Your task to perform on an android device: Open settings on Google Maps Image 0: 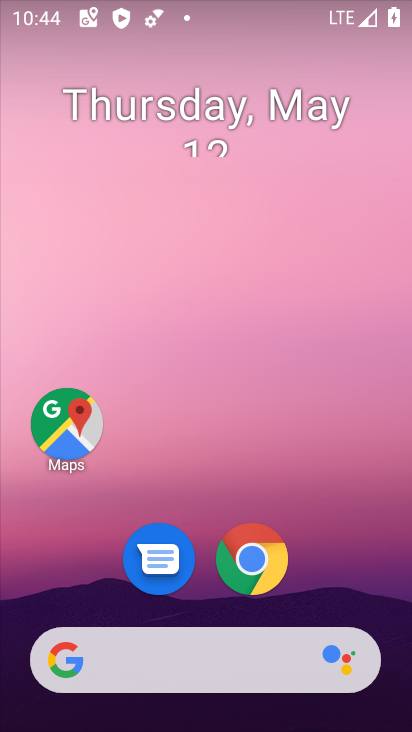
Step 0: click (82, 442)
Your task to perform on an android device: Open settings on Google Maps Image 1: 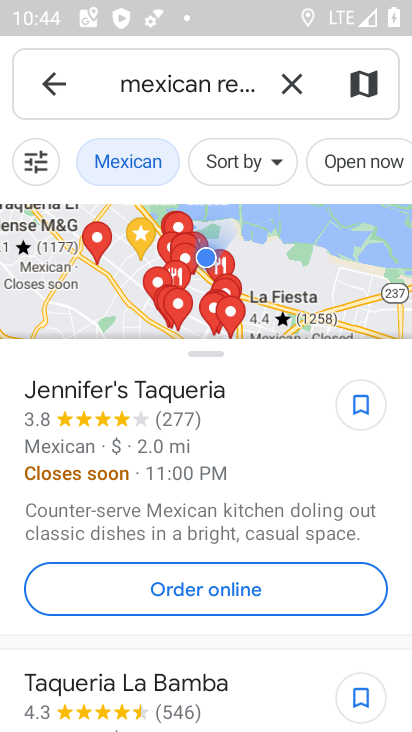
Step 1: click (286, 84)
Your task to perform on an android device: Open settings on Google Maps Image 2: 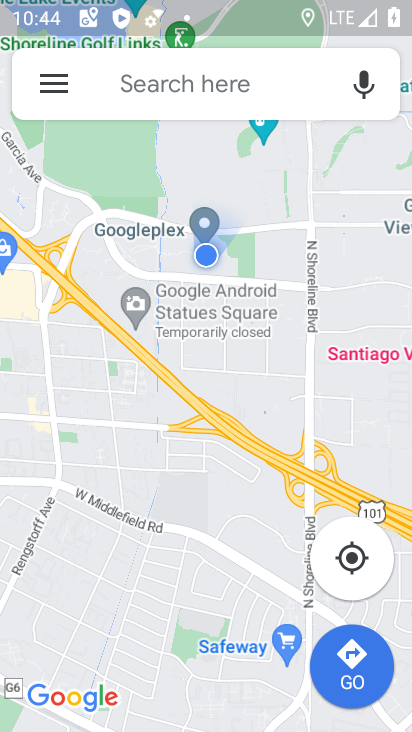
Step 2: click (67, 83)
Your task to perform on an android device: Open settings on Google Maps Image 3: 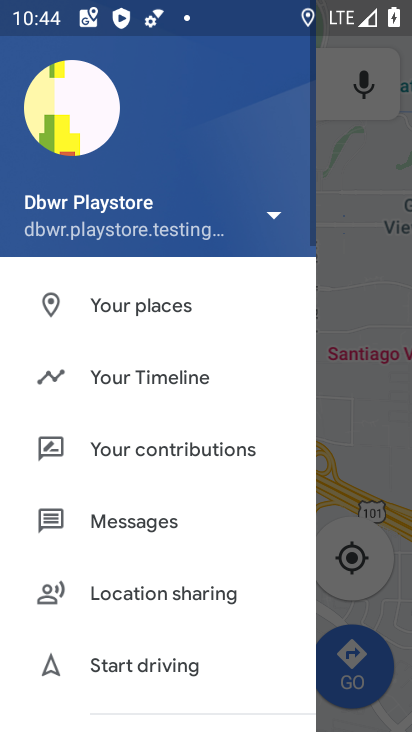
Step 3: drag from (150, 659) to (148, 310)
Your task to perform on an android device: Open settings on Google Maps Image 4: 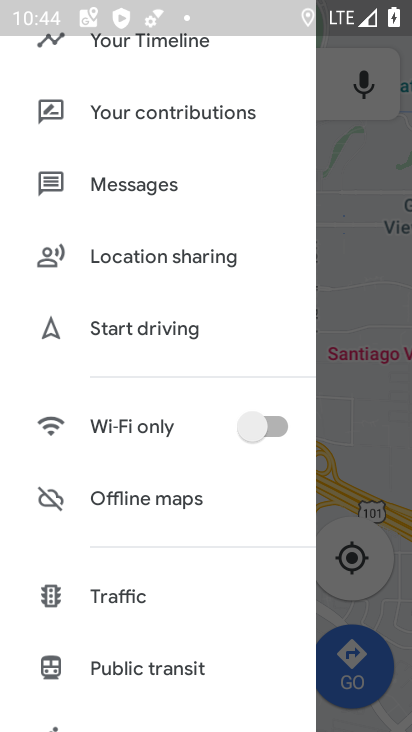
Step 4: drag from (151, 612) to (167, 361)
Your task to perform on an android device: Open settings on Google Maps Image 5: 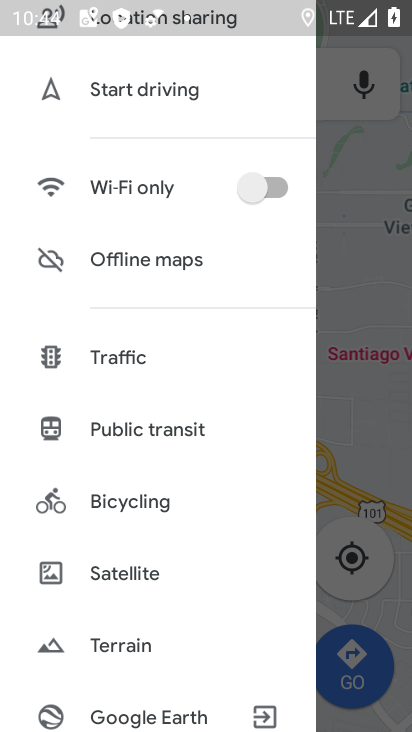
Step 5: drag from (153, 646) to (163, 403)
Your task to perform on an android device: Open settings on Google Maps Image 6: 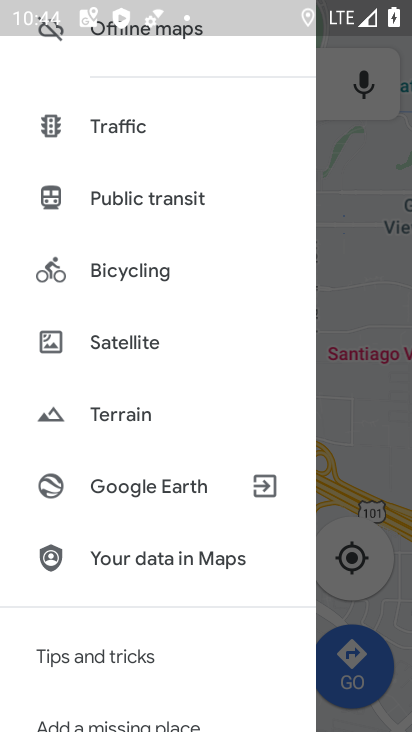
Step 6: drag from (156, 664) to (172, 407)
Your task to perform on an android device: Open settings on Google Maps Image 7: 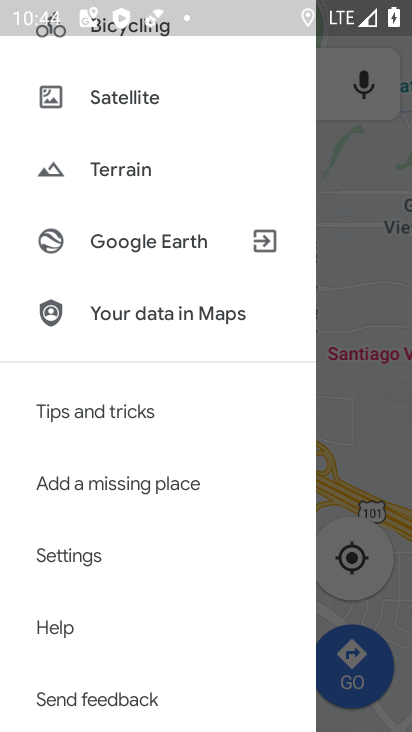
Step 7: click (85, 565)
Your task to perform on an android device: Open settings on Google Maps Image 8: 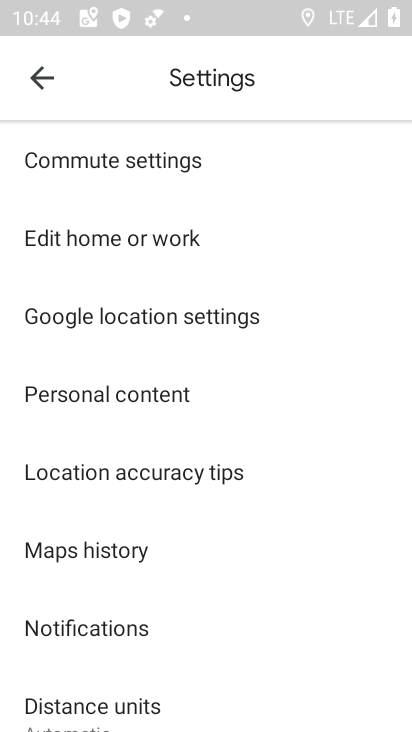
Step 8: task complete